Your task to perform on an android device: Search for Mexican restaurants on Maps Image 0: 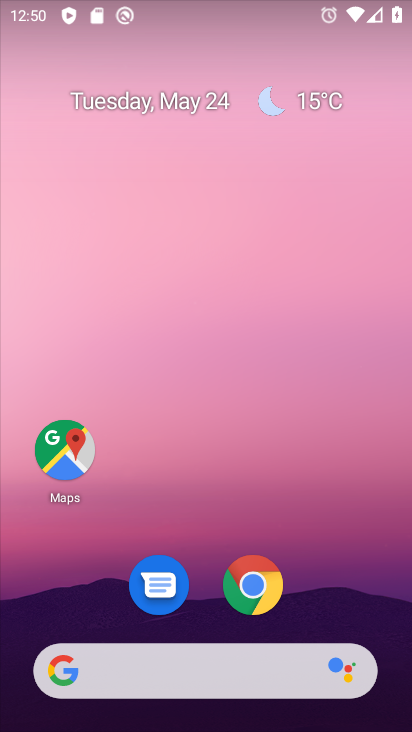
Step 0: click (75, 446)
Your task to perform on an android device: Search for Mexican restaurants on Maps Image 1: 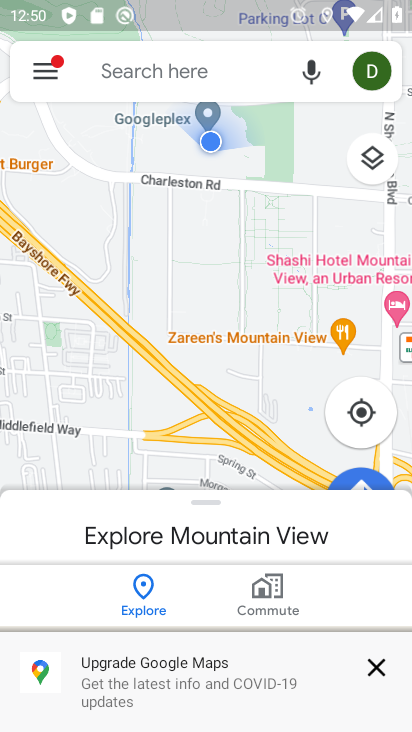
Step 1: click (185, 61)
Your task to perform on an android device: Search for Mexican restaurants on Maps Image 2: 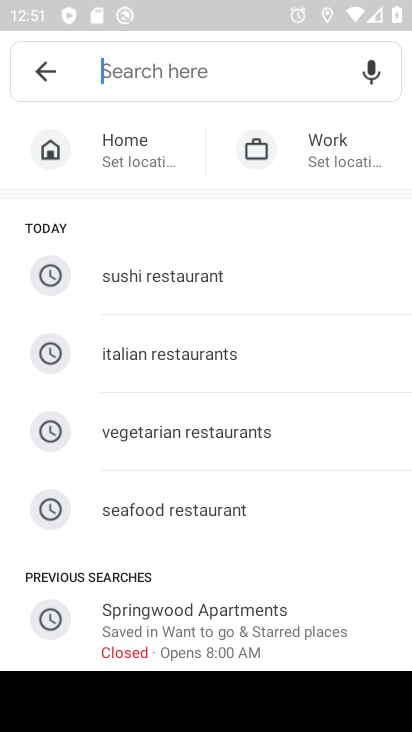
Step 2: type "mexican restaurants"
Your task to perform on an android device: Search for Mexican restaurants on Maps Image 3: 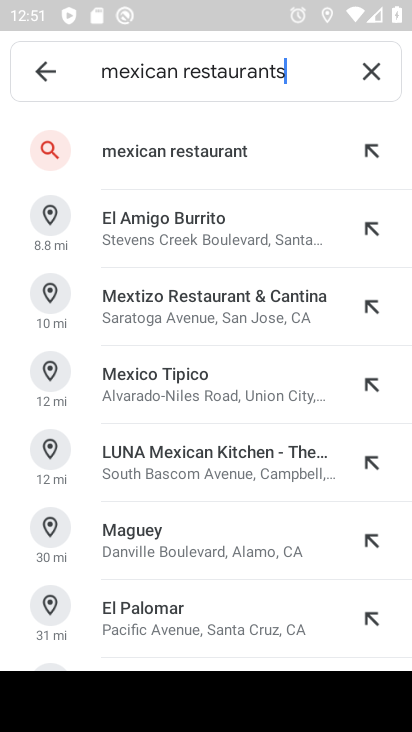
Step 3: click (246, 151)
Your task to perform on an android device: Search for Mexican restaurants on Maps Image 4: 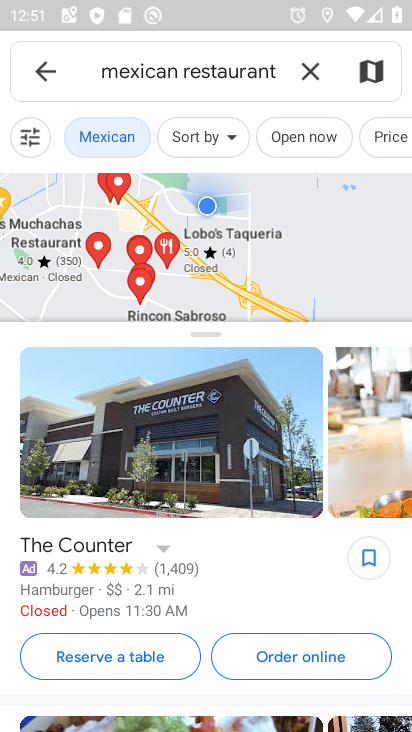
Step 4: task complete